Your task to perform on an android device: turn off sleep mode Image 0: 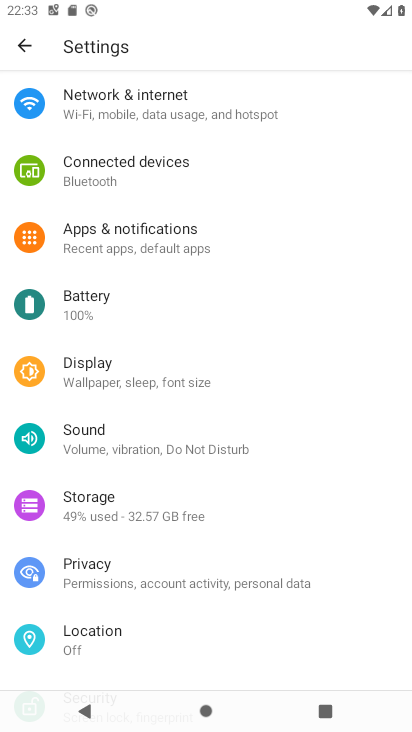
Step 0: click (132, 362)
Your task to perform on an android device: turn off sleep mode Image 1: 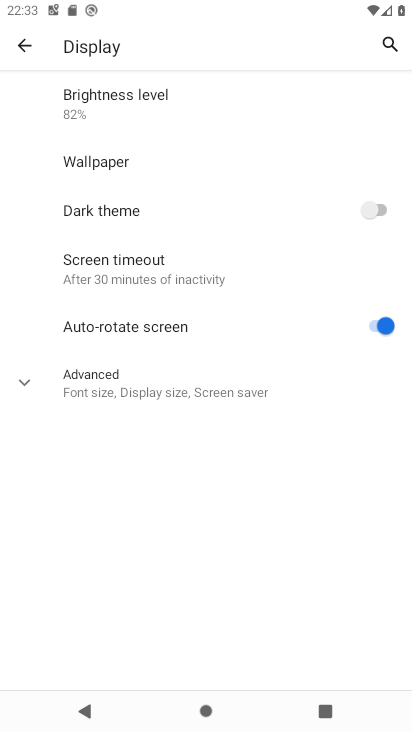
Step 1: click (25, 381)
Your task to perform on an android device: turn off sleep mode Image 2: 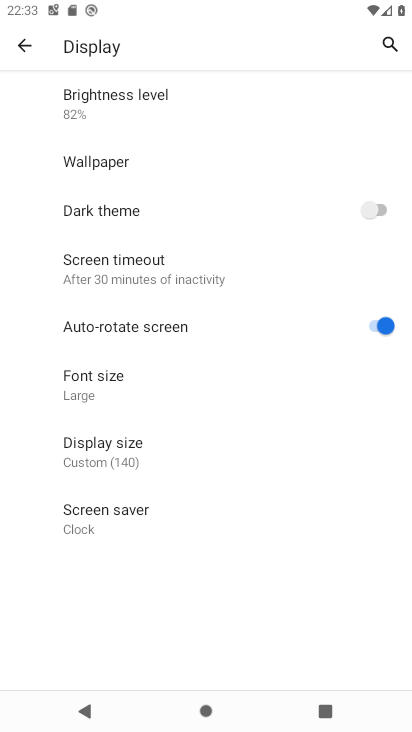
Step 2: task complete